Your task to perform on an android device: Search for Mexican restaurants on Maps Image 0: 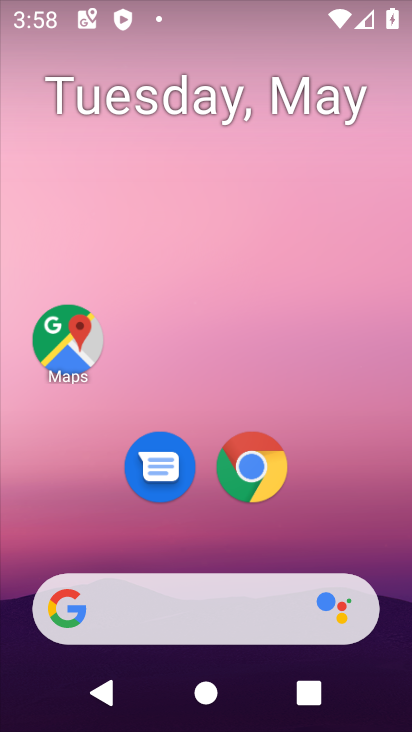
Step 0: click (78, 359)
Your task to perform on an android device: Search for Mexican restaurants on Maps Image 1: 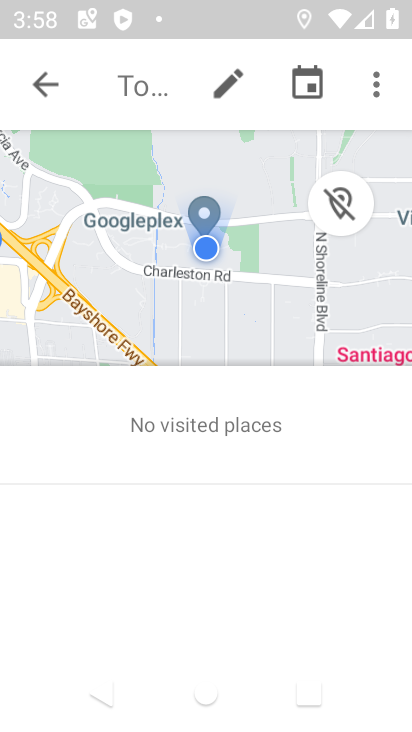
Step 1: click (20, 80)
Your task to perform on an android device: Search for Mexican restaurants on Maps Image 2: 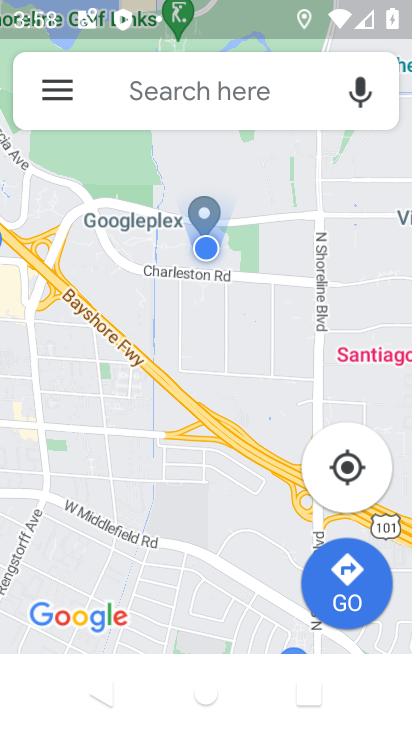
Step 2: click (224, 97)
Your task to perform on an android device: Search for Mexican restaurants on Maps Image 3: 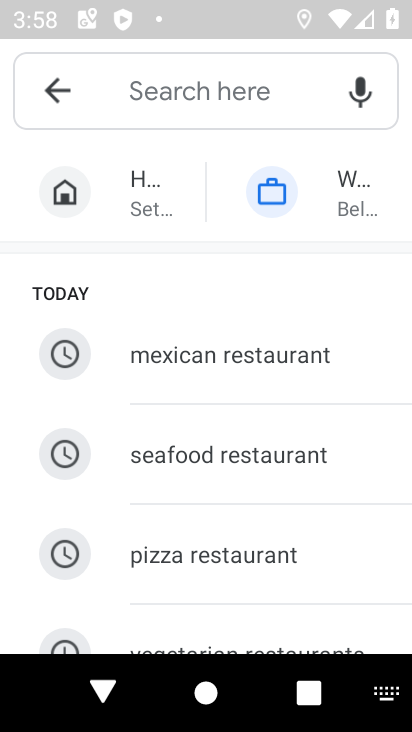
Step 3: click (255, 371)
Your task to perform on an android device: Search for Mexican restaurants on Maps Image 4: 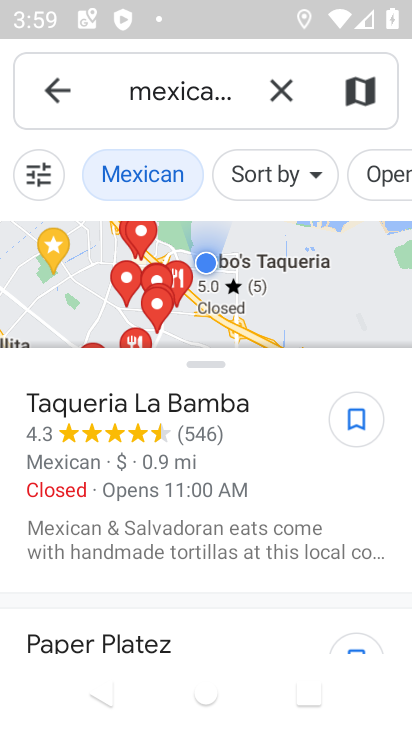
Step 4: task complete